Your task to perform on an android device: change the clock display to digital Image 0: 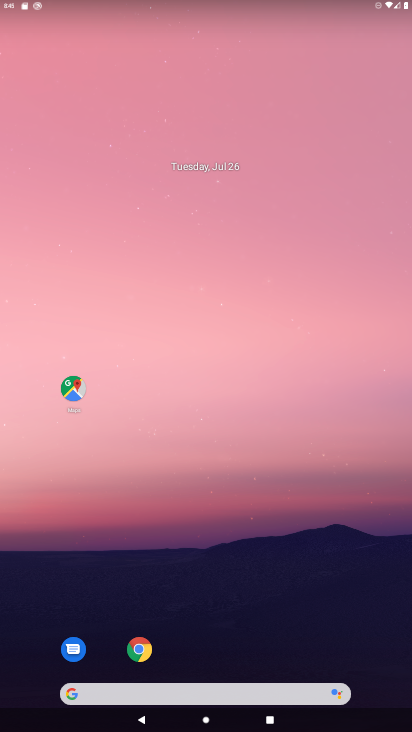
Step 0: drag from (193, 637) to (196, 252)
Your task to perform on an android device: change the clock display to digital Image 1: 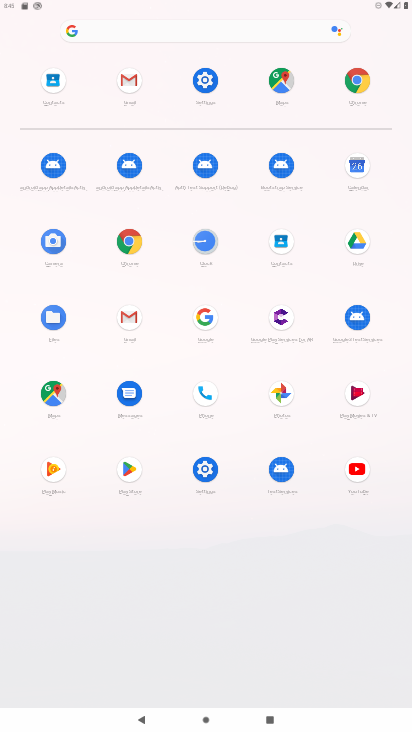
Step 1: click (211, 231)
Your task to perform on an android device: change the clock display to digital Image 2: 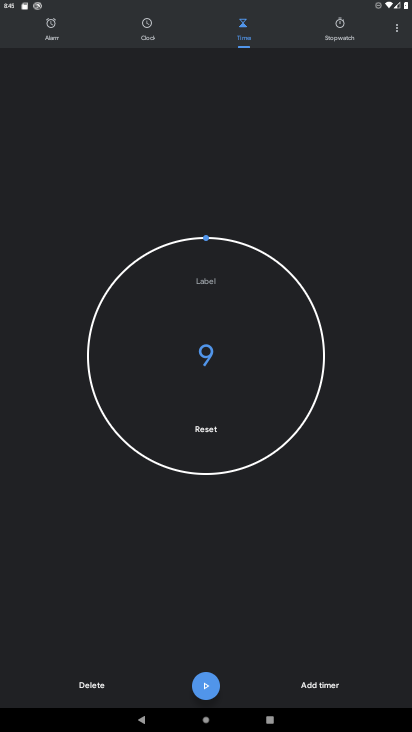
Step 2: click (397, 41)
Your task to perform on an android device: change the clock display to digital Image 3: 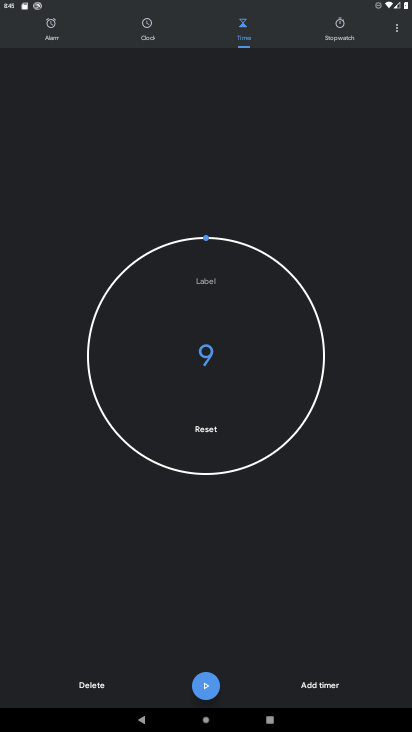
Step 3: click (402, 28)
Your task to perform on an android device: change the clock display to digital Image 4: 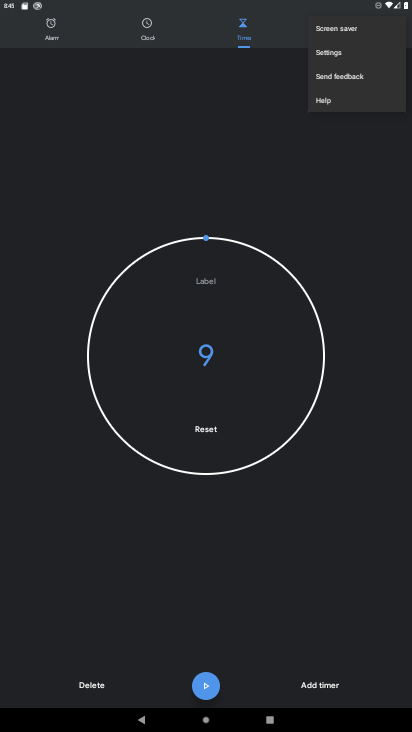
Step 4: click (344, 59)
Your task to perform on an android device: change the clock display to digital Image 5: 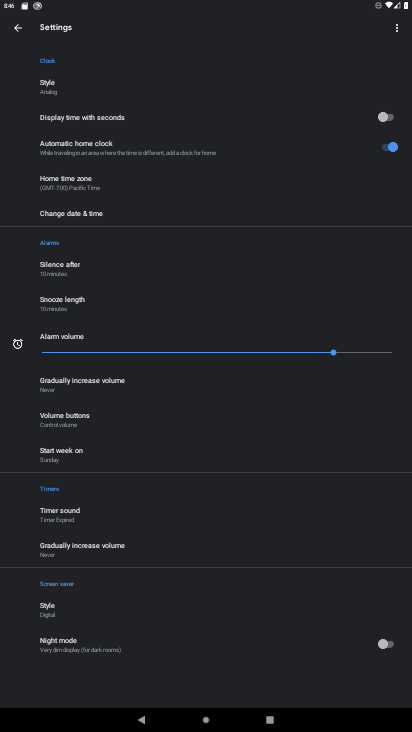
Step 5: click (46, 91)
Your task to perform on an android device: change the clock display to digital Image 6: 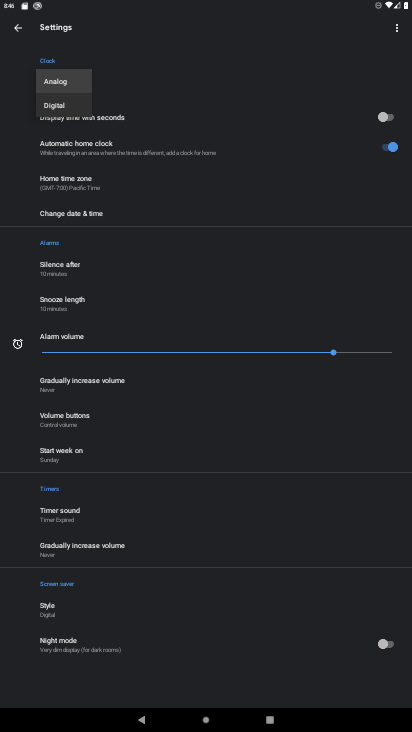
Step 6: click (70, 107)
Your task to perform on an android device: change the clock display to digital Image 7: 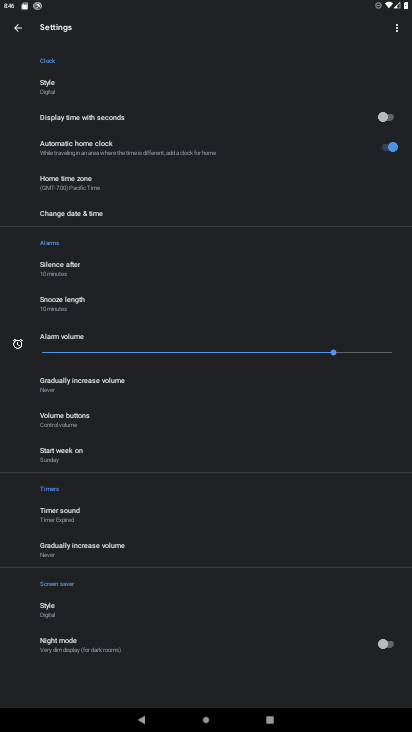
Step 7: task complete